Your task to perform on an android device: Open the calendar app, open the side menu, and click the "Day" option Image 0: 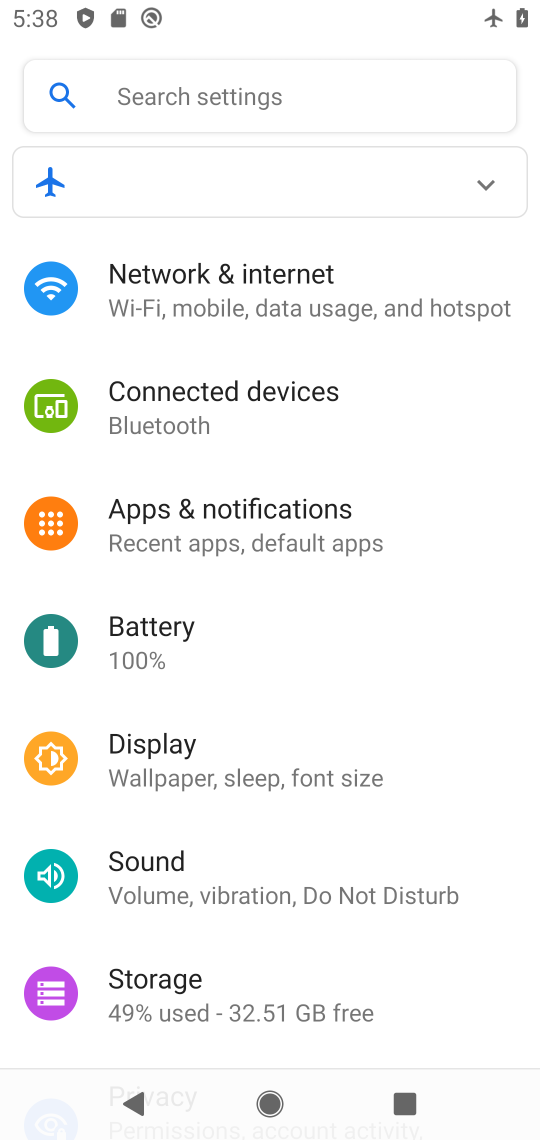
Step 0: press home button
Your task to perform on an android device: Open the calendar app, open the side menu, and click the "Day" option Image 1: 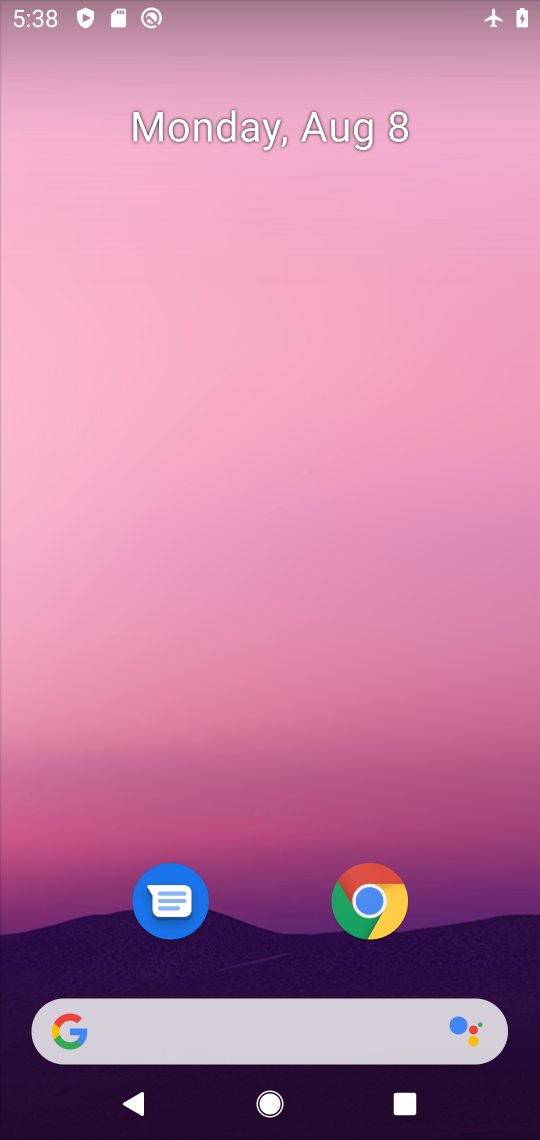
Step 1: drag from (501, 919) to (309, 159)
Your task to perform on an android device: Open the calendar app, open the side menu, and click the "Day" option Image 2: 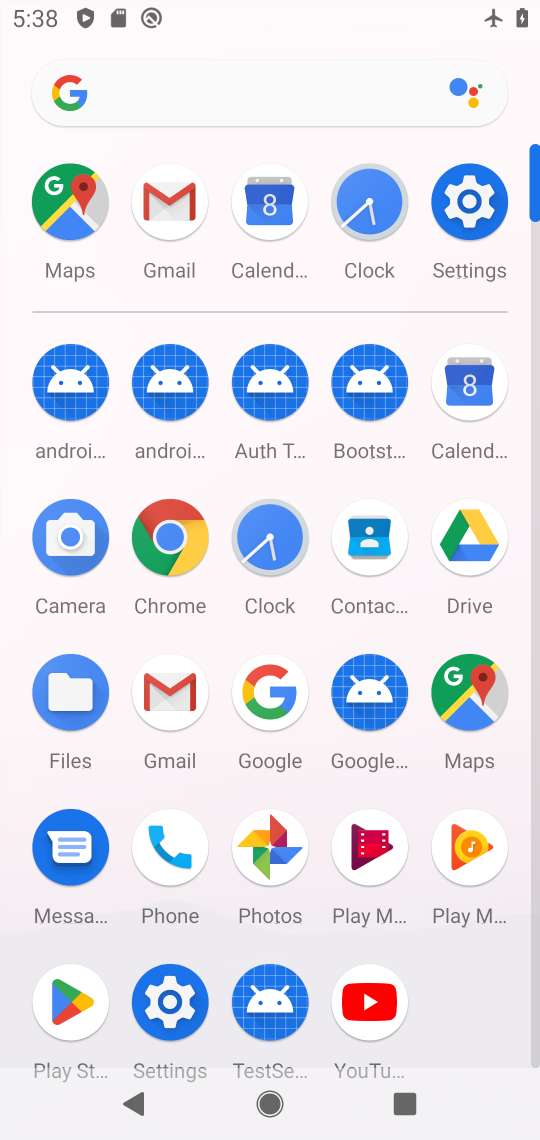
Step 2: click (476, 382)
Your task to perform on an android device: Open the calendar app, open the side menu, and click the "Day" option Image 3: 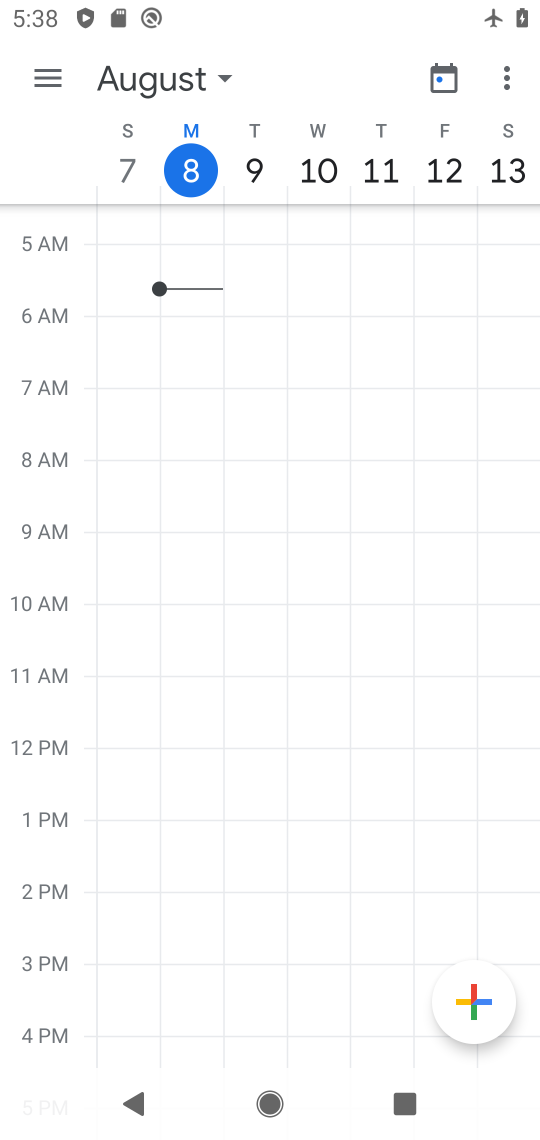
Step 3: click (32, 95)
Your task to perform on an android device: Open the calendar app, open the side menu, and click the "Day" option Image 4: 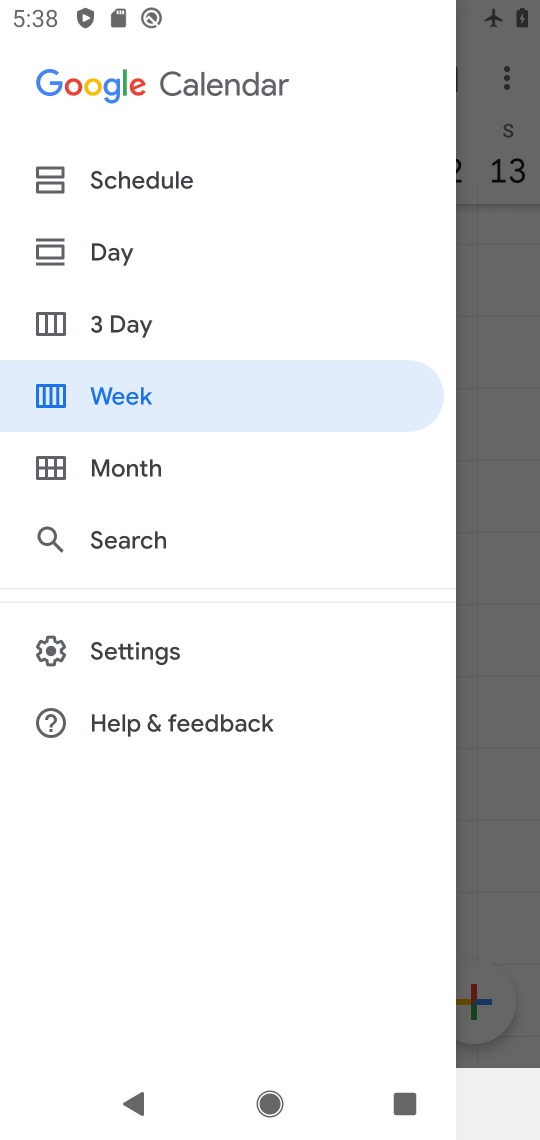
Step 4: click (128, 240)
Your task to perform on an android device: Open the calendar app, open the side menu, and click the "Day" option Image 5: 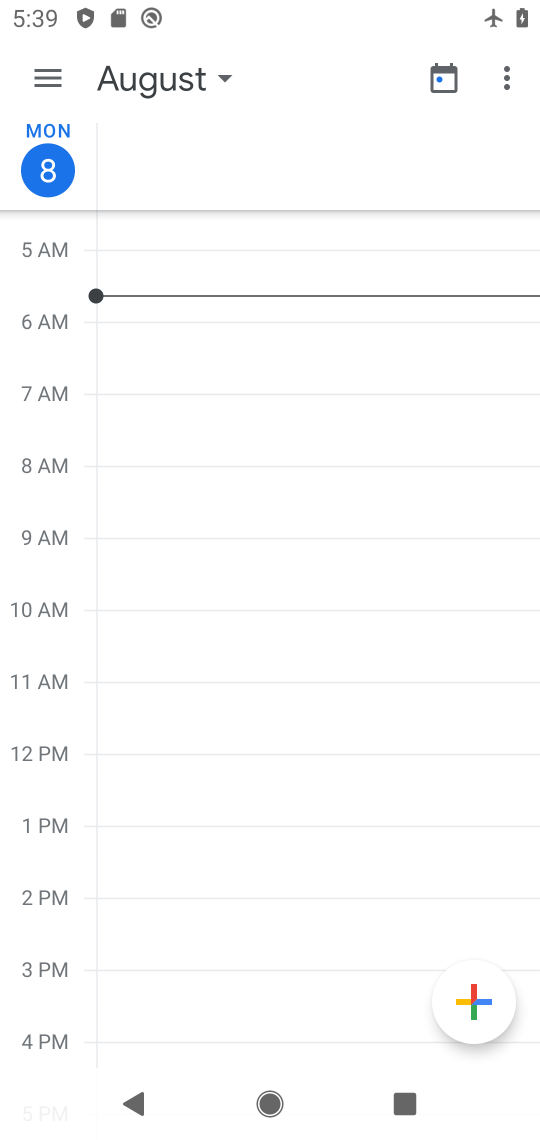
Step 5: click (67, 88)
Your task to perform on an android device: Open the calendar app, open the side menu, and click the "Day" option Image 6: 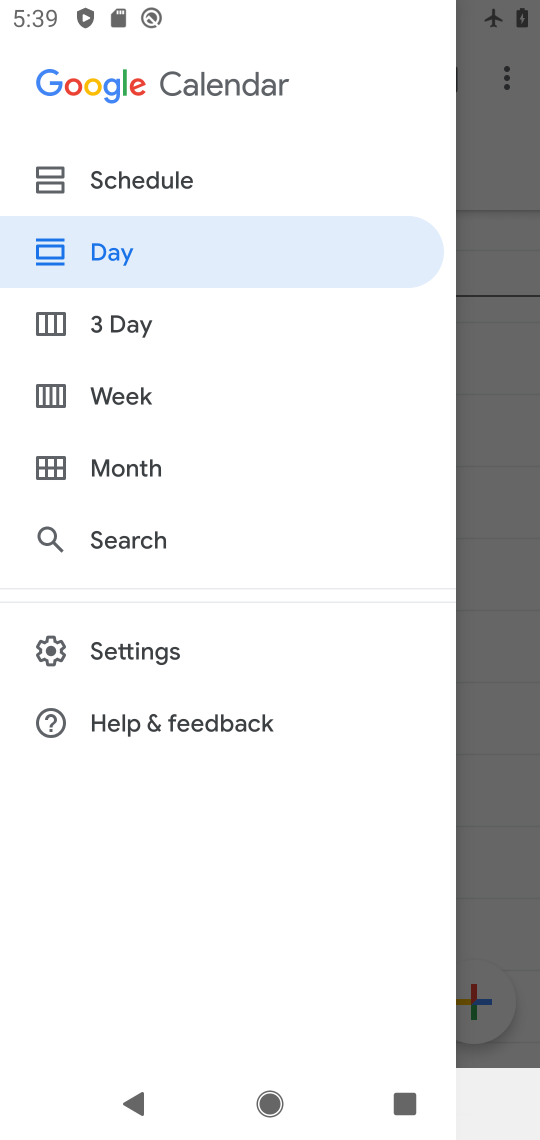
Step 6: click (133, 250)
Your task to perform on an android device: Open the calendar app, open the side menu, and click the "Day" option Image 7: 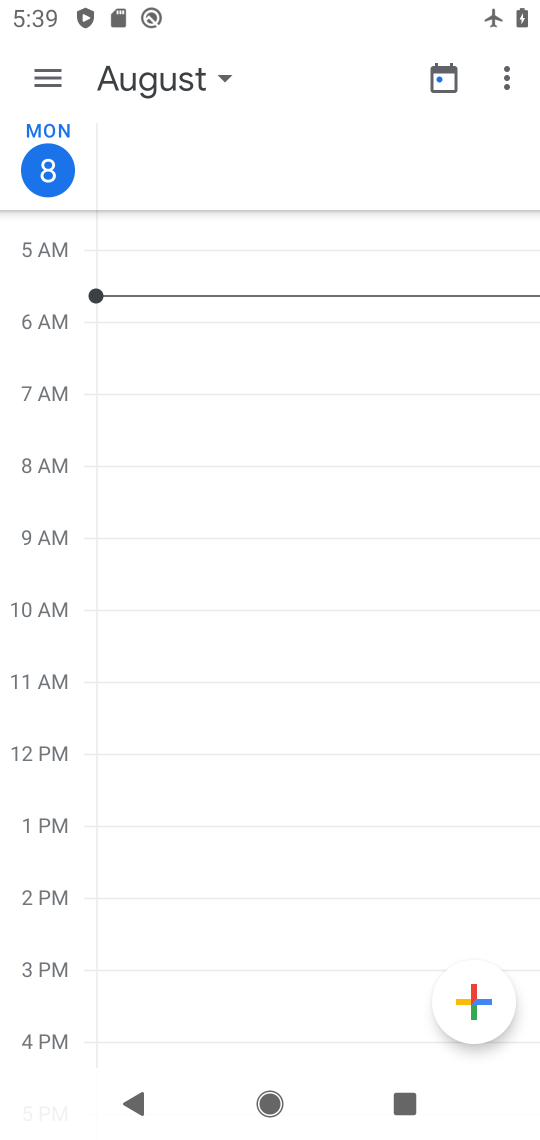
Step 7: task complete